Your task to perform on an android device: change notification settings in the gmail app Image 0: 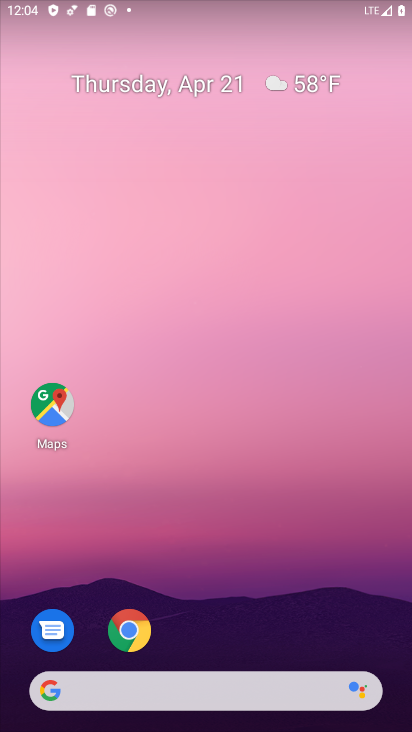
Step 0: drag from (131, 694) to (315, 50)
Your task to perform on an android device: change notification settings in the gmail app Image 1: 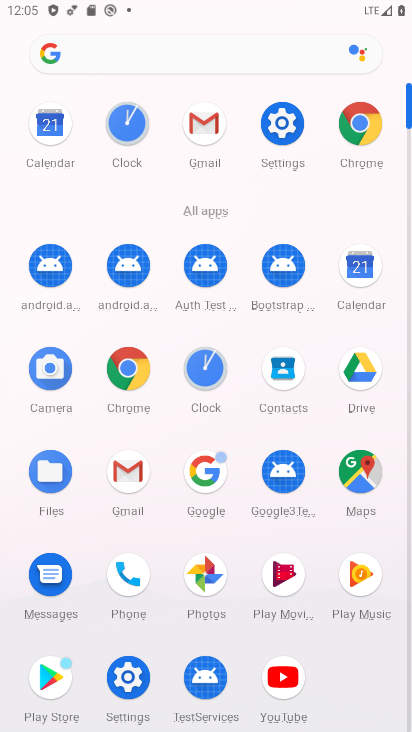
Step 1: click (202, 124)
Your task to perform on an android device: change notification settings in the gmail app Image 2: 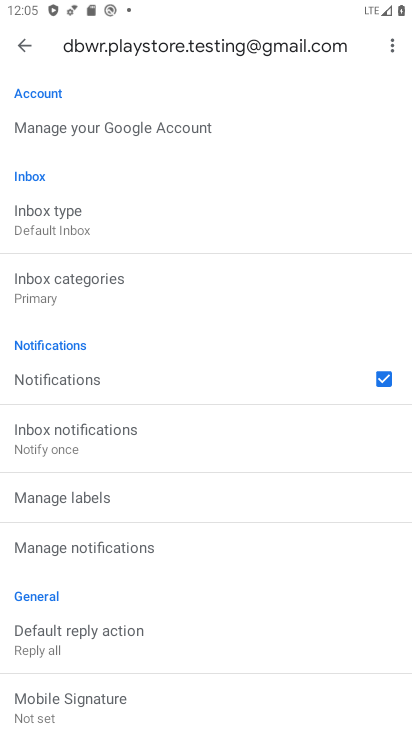
Step 2: click (77, 370)
Your task to perform on an android device: change notification settings in the gmail app Image 3: 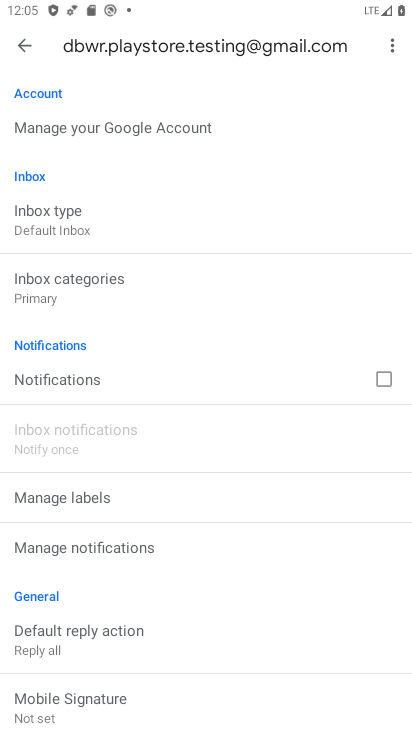
Step 3: click (50, 350)
Your task to perform on an android device: change notification settings in the gmail app Image 4: 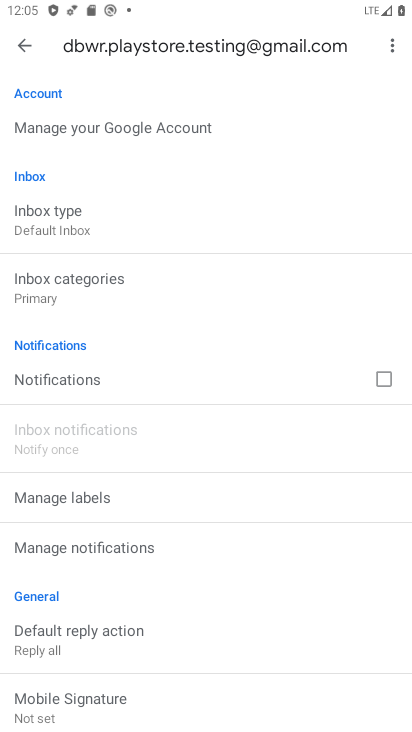
Step 4: click (44, 377)
Your task to perform on an android device: change notification settings in the gmail app Image 5: 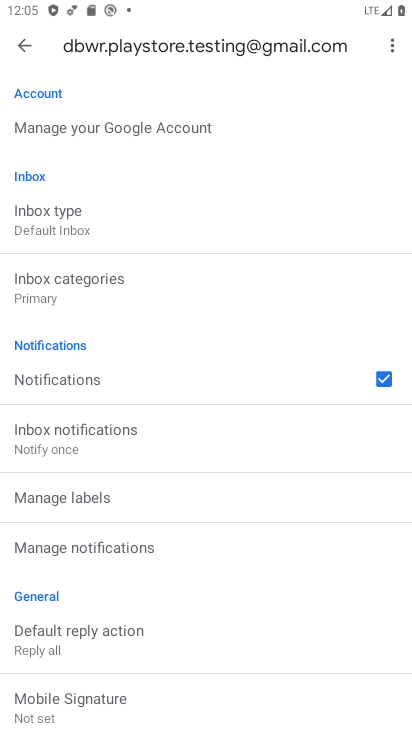
Step 5: click (44, 377)
Your task to perform on an android device: change notification settings in the gmail app Image 6: 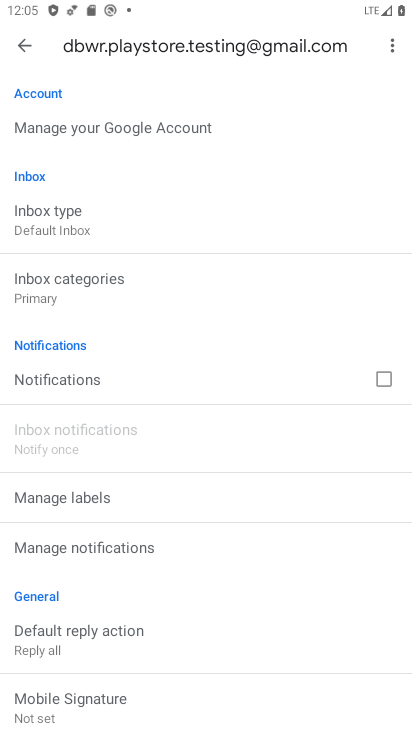
Step 6: task complete